Your task to perform on an android device: turn on notifications settings in the gmail app Image 0: 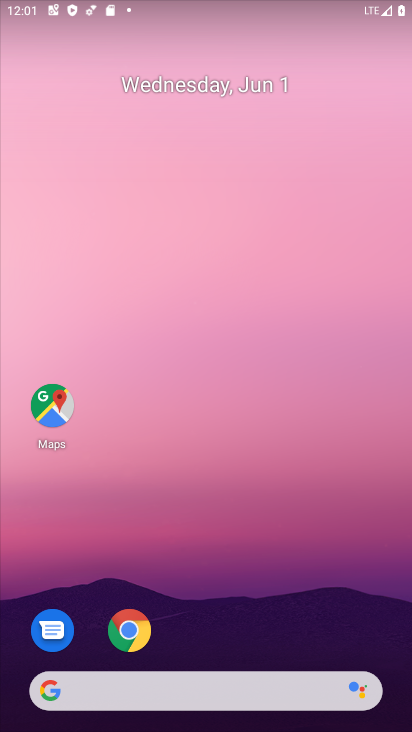
Step 0: press home button
Your task to perform on an android device: turn on notifications settings in the gmail app Image 1: 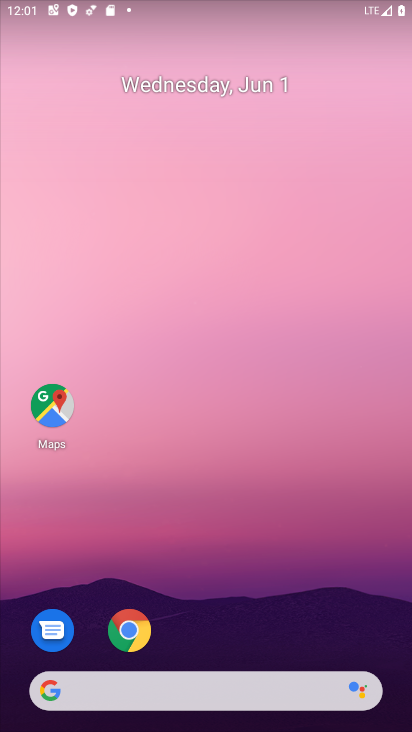
Step 1: drag from (272, 625) to (286, 111)
Your task to perform on an android device: turn on notifications settings in the gmail app Image 2: 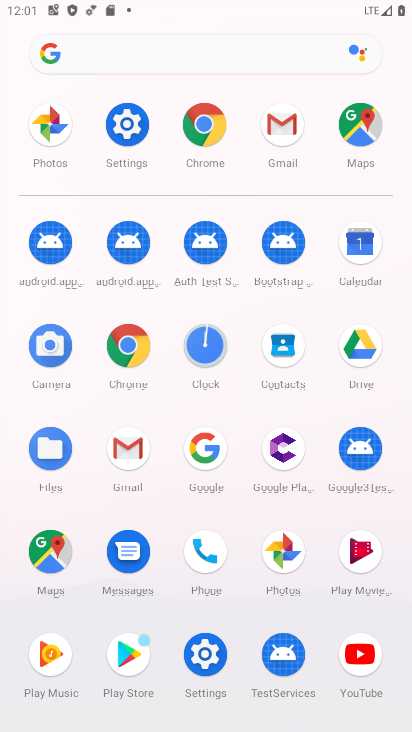
Step 2: click (282, 135)
Your task to perform on an android device: turn on notifications settings in the gmail app Image 3: 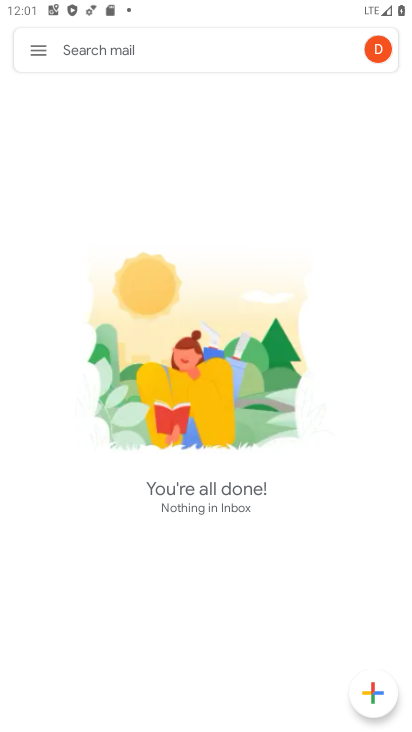
Step 3: click (40, 58)
Your task to perform on an android device: turn on notifications settings in the gmail app Image 4: 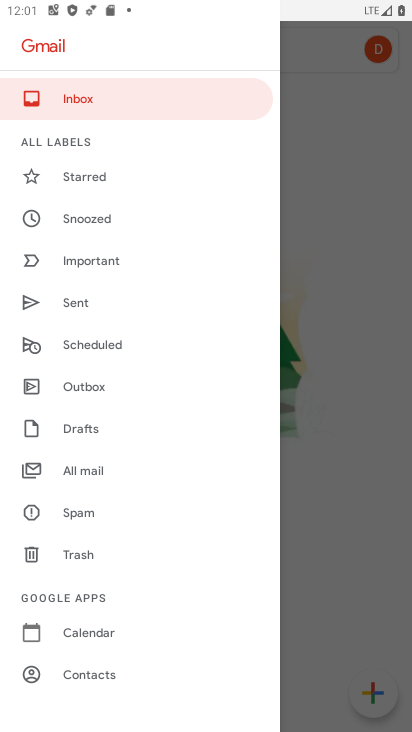
Step 4: drag from (233, 634) to (219, 365)
Your task to perform on an android device: turn on notifications settings in the gmail app Image 5: 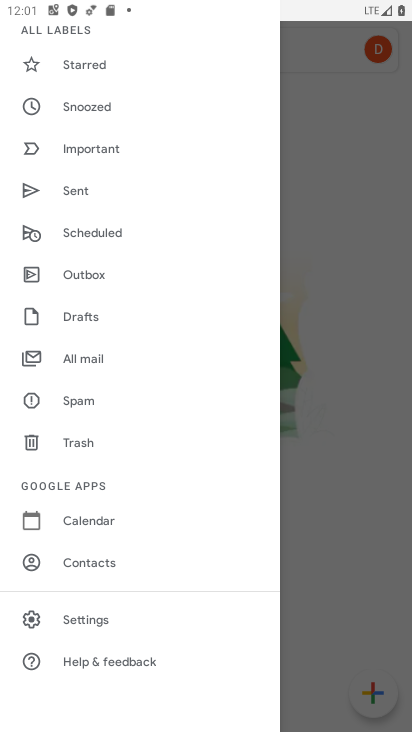
Step 5: click (89, 616)
Your task to perform on an android device: turn on notifications settings in the gmail app Image 6: 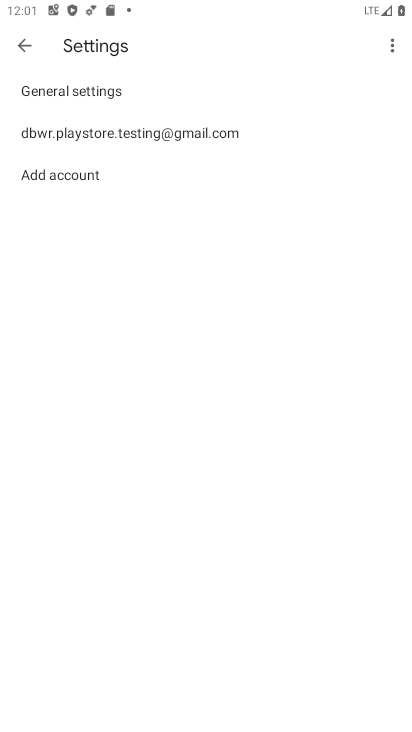
Step 6: click (164, 131)
Your task to perform on an android device: turn on notifications settings in the gmail app Image 7: 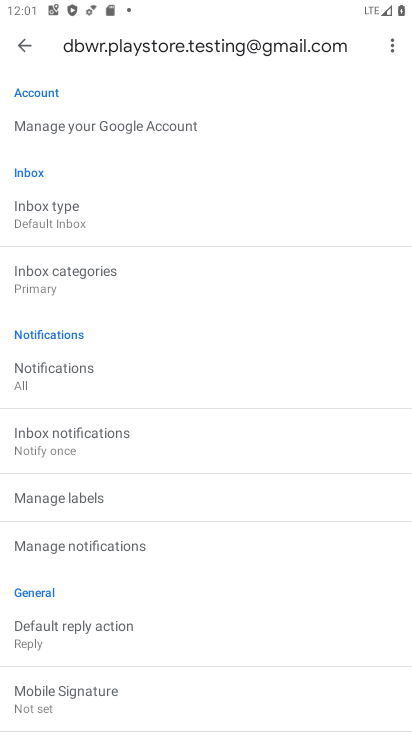
Step 7: click (95, 541)
Your task to perform on an android device: turn on notifications settings in the gmail app Image 8: 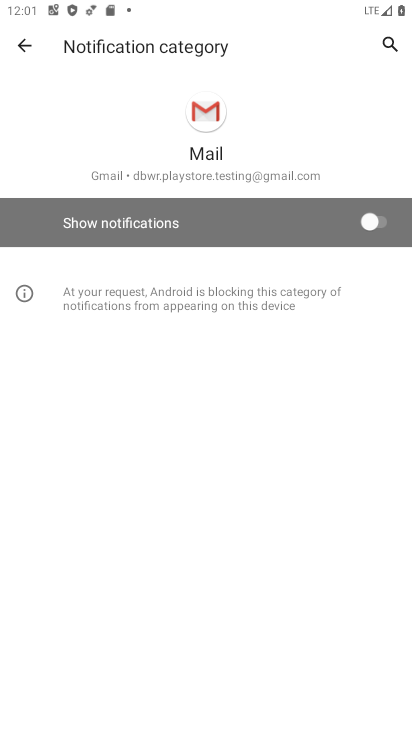
Step 8: click (374, 219)
Your task to perform on an android device: turn on notifications settings in the gmail app Image 9: 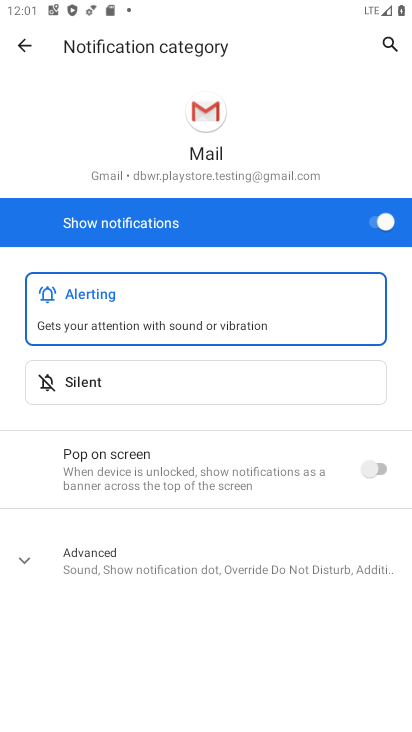
Step 9: task complete